Your task to perform on an android device: Open CNN.com Image 0: 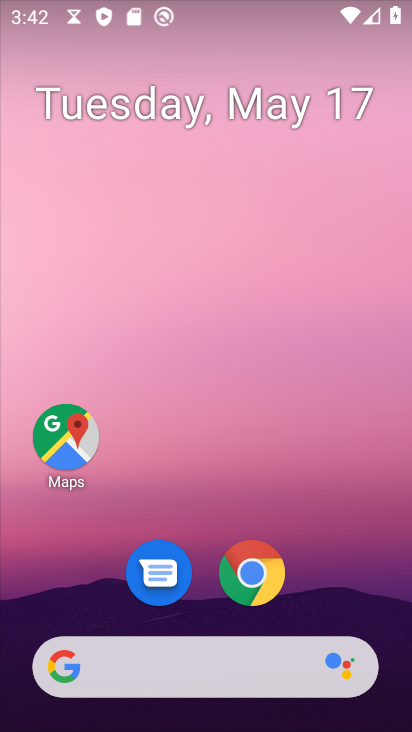
Step 0: click (266, 587)
Your task to perform on an android device: Open CNN.com Image 1: 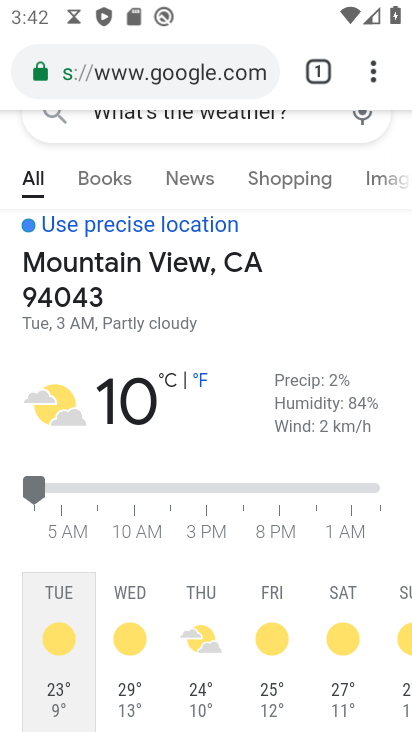
Step 1: click (234, 74)
Your task to perform on an android device: Open CNN.com Image 2: 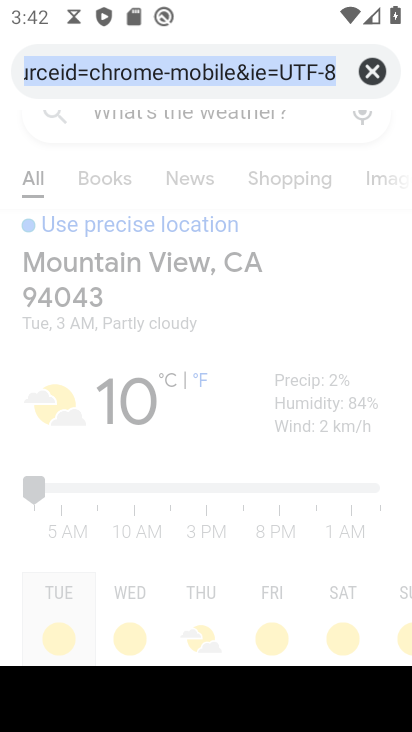
Step 2: type "CNN.com"
Your task to perform on an android device: Open CNN.com Image 3: 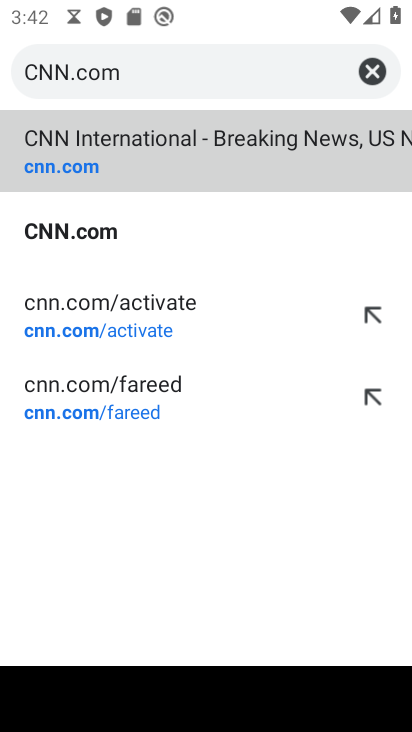
Step 3: click (69, 162)
Your task to perform on an android device: Open CNN.com Image 4: 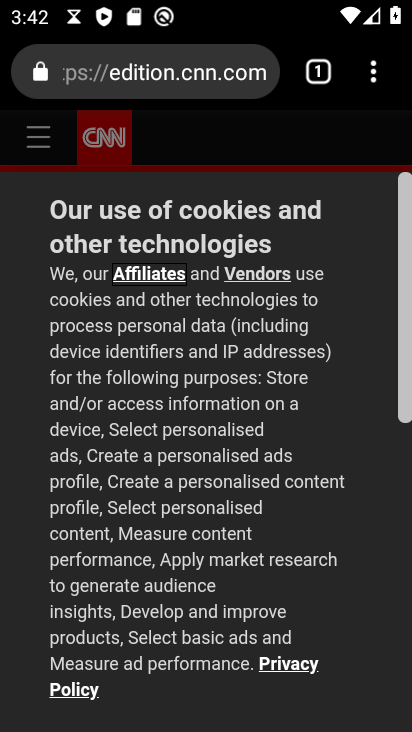
Step 4: task complete